Your task to perform on an android device: stop showing notifications on the lock screen Image 0: 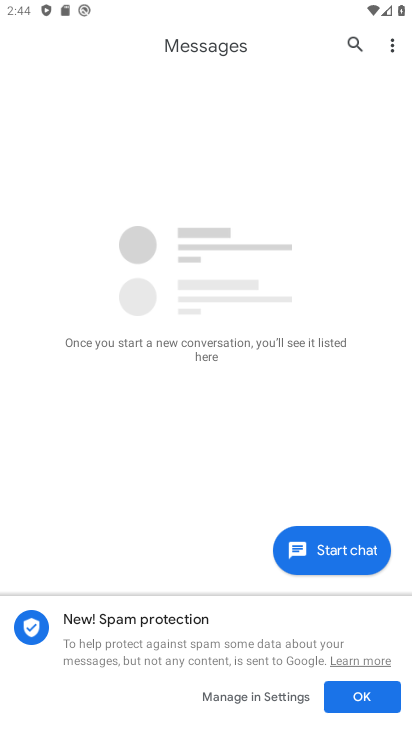
Step 0: press home button
Your task to perform on an android device: stop showing notifications on the lock screen Image 1: 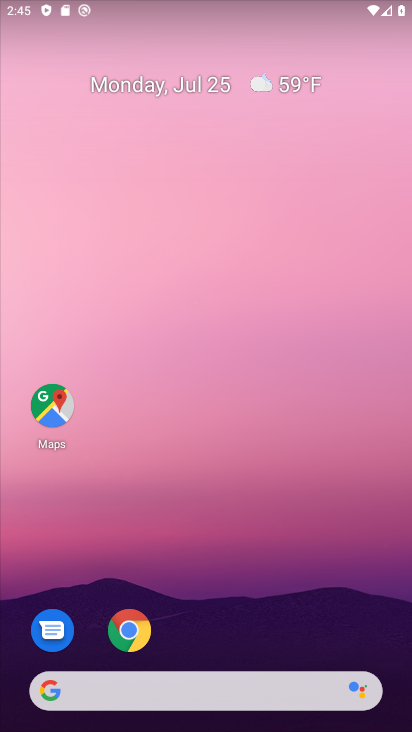
Step 1: drag from (258, 617) to (153, 61)
Your task to perform on an android device: stop showing notifications on the lock screen Image 2: 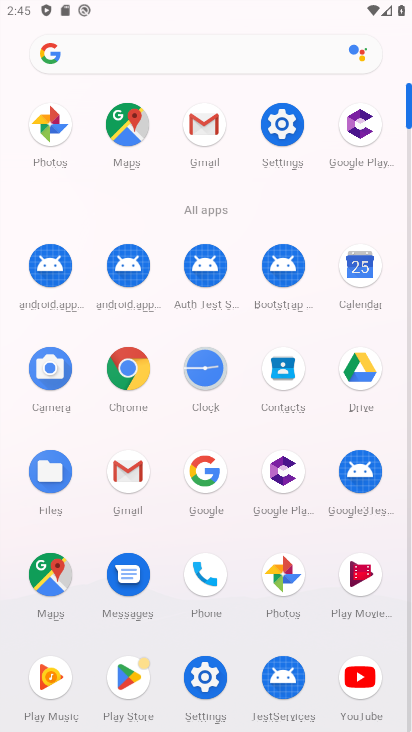
Step 2: click (282, 143)
Your task to perform on an android device: stop showing notifications on the lock screen Image 3: 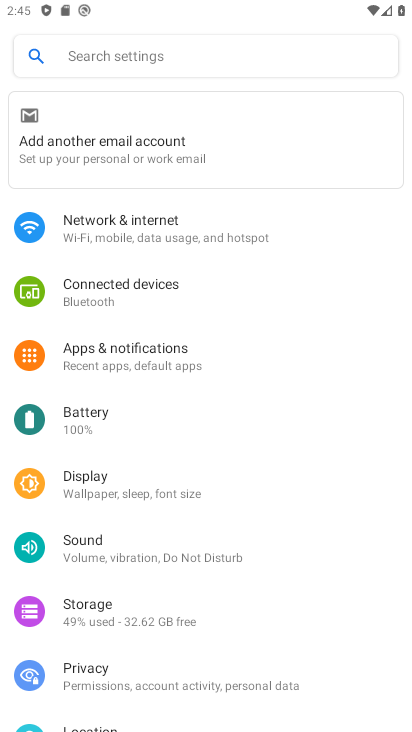
Step 3: click (120, 353)
Your task to perform on an android device: stop showing notifications on the lock screen Image 4: 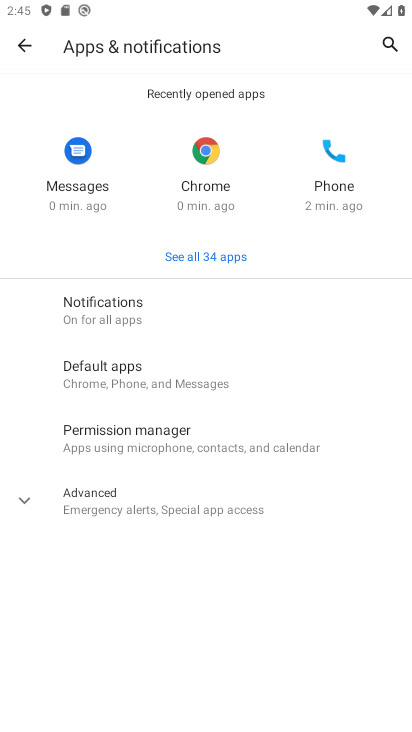
Step 4: click (178, 304)
Your task to perform on an android device: stop showing notifications on the lock screen Image 5: 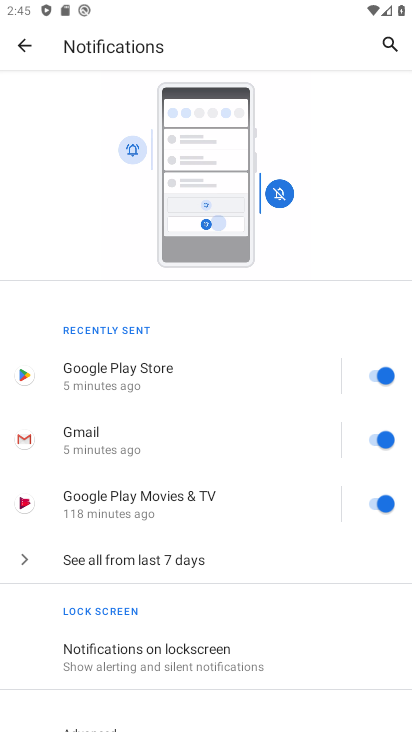
Step 5: drag from (122, 639) to (106, 41)
Your task to perform on an android device: stop showing notifications on the lock screen Image 6: 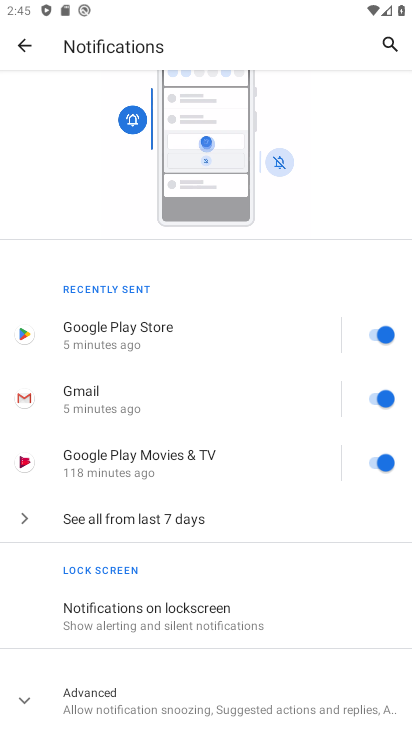
Step 6: click (133, 630)
Your task to perform on an android device: stop showing notifications on the lock screen Image 7: 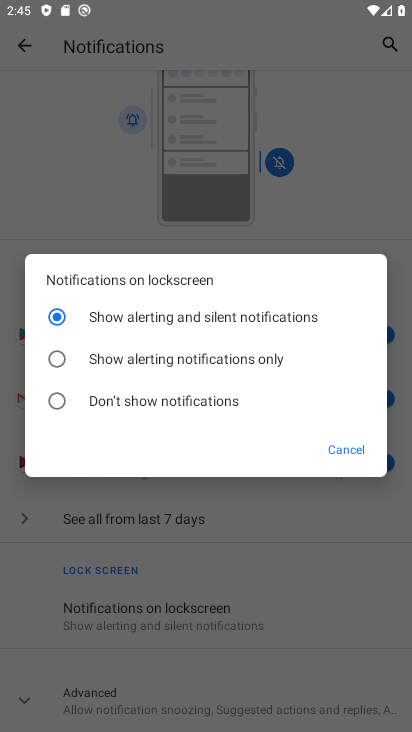
Step 7: click (210, 412)
Your task to perform on an android device: stop showing notifications on the lock screen Image 8: 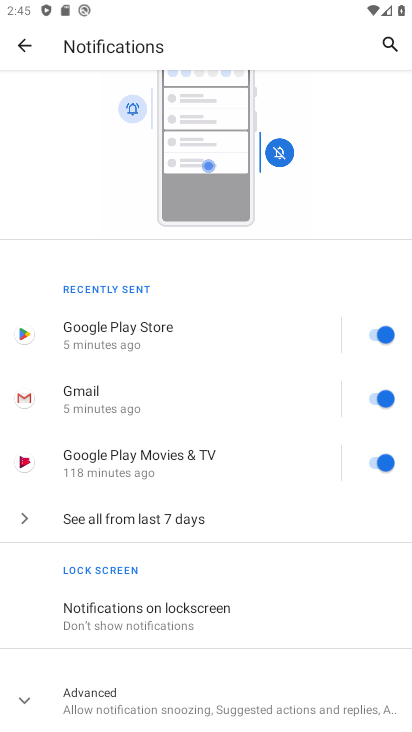
Step 8: task complete